Your task to perform on an android device: turn off improve location accuracy Image 0: 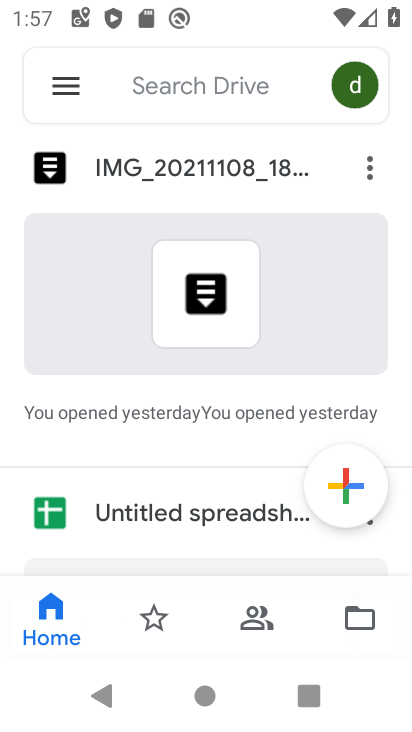
Step 0: press home button
Your task to perform on an android device: turn off improve location accuracy Image 1: 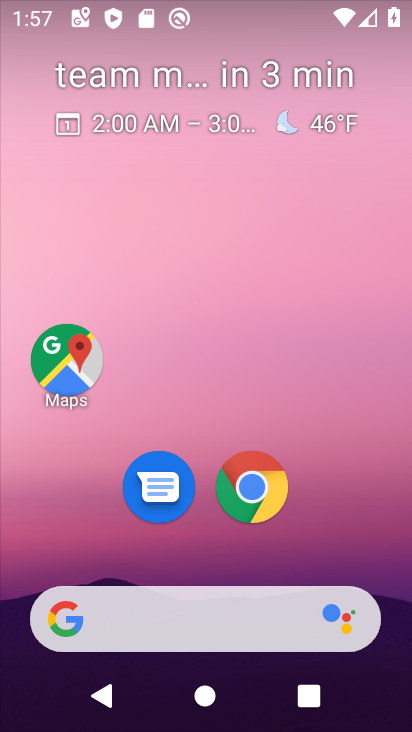
Step 1: drag from (342, 519) to (282, 91)
Your task to perform on an android device: turn off improve location accuracy Image 2: 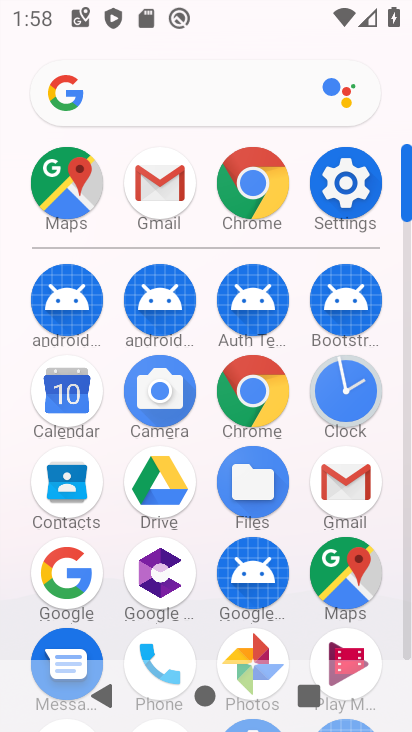
Step 2: click (340, 192)
Your task to perform on an android device: turn off improve location accuracy Image 3: 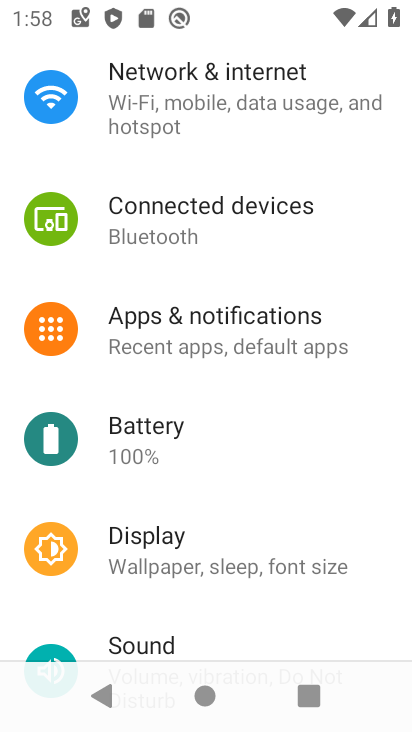
Step 3: drag from (262, 218) to (318, 133)
Your task to perform on an android device: turn off improve location accuracy Image 4: 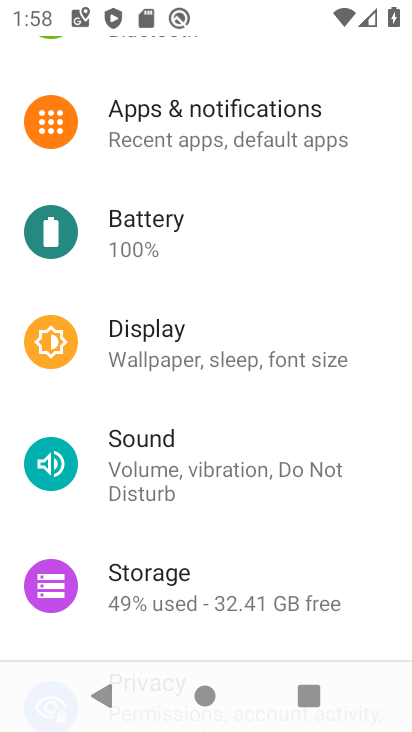
Step 4: drag from (222, 515) to (255, 188)
Your task to perform on an android device: turn off improve location accuracy Image 5: 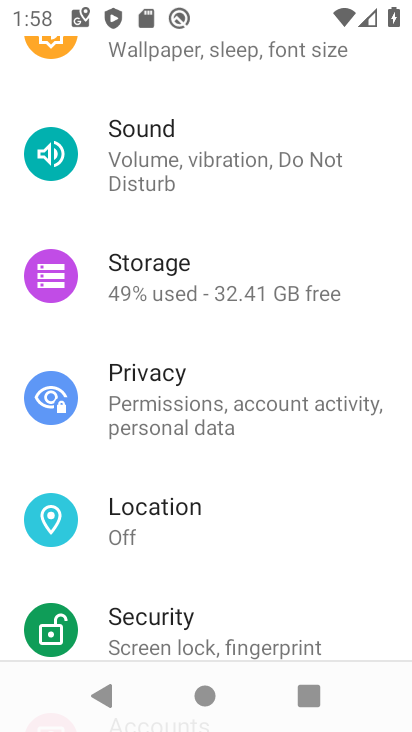
Step 5: drag from (163, 568) to (243, 318)
Your task to perform on an android device: turn off improve location accuracy Image 6: 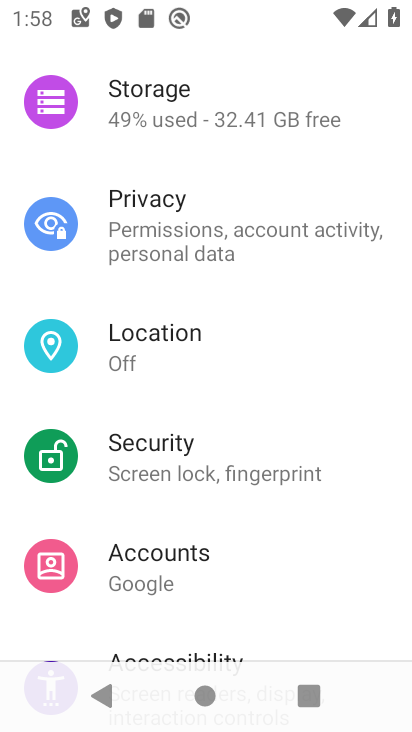
Step 6: click (166, 324)
Your task to perform on an android device: turn off improve location accuracy Image 7: 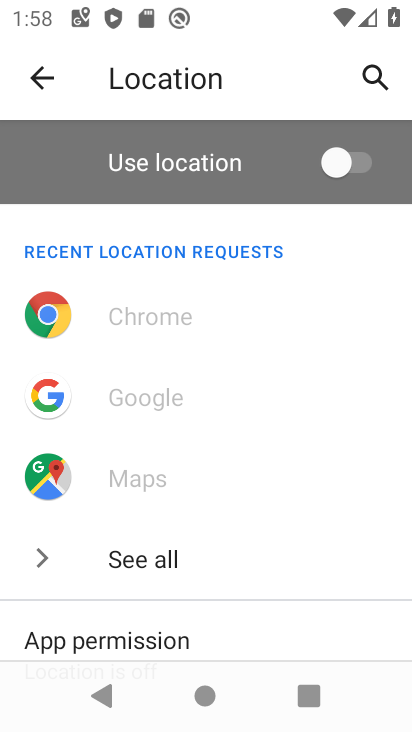
Step 7: drag from (170, 620) to (252, 207)
Your task to perform on an android device: turn off improve location accuracy Image 8: 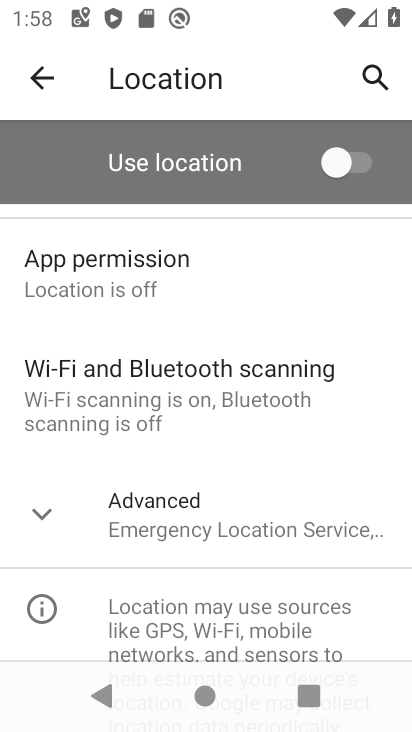
Step 8: click (209, 504)
Your task to perform on an android device: turn off improve location accuracy Image 9: 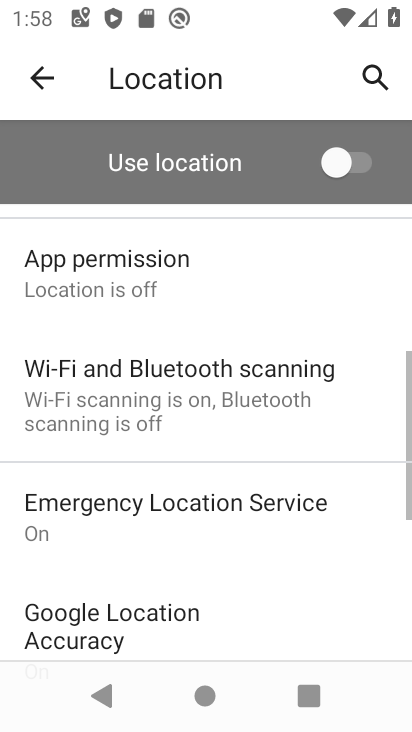
Step 9: drag from (320, 608) to (335, 190)
Your task to perform on an android device: turn off improve location accuracy Image 10: 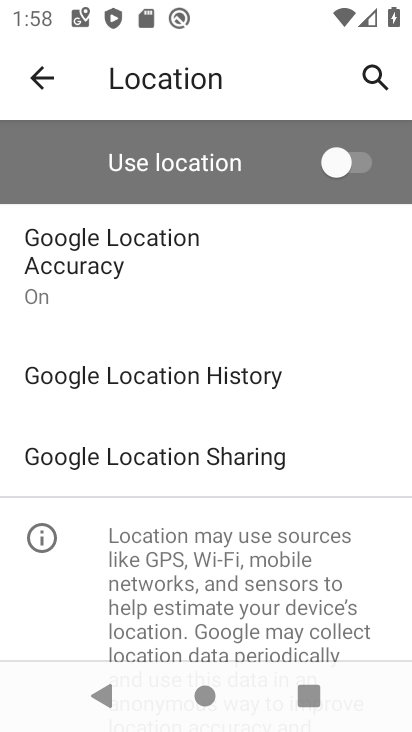
Step 10: drag from (325, 299) to (323, 455)
Your task to perform on an android device: turn off improve location accuracy Image 11: 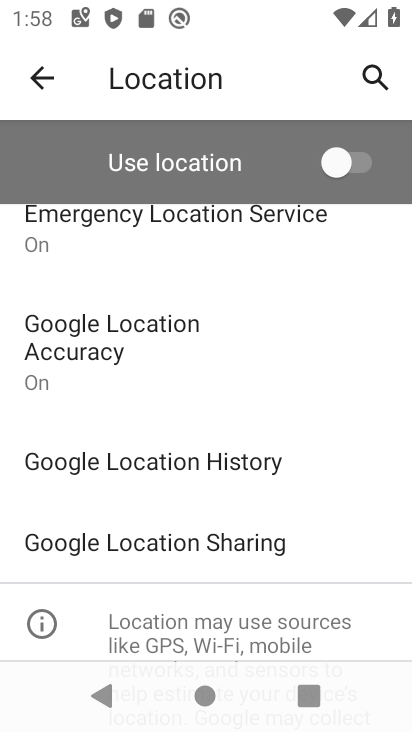
Step 11: click (142, 334)
Your task to perform on an android device: turn off improve location accuracy Image 12: 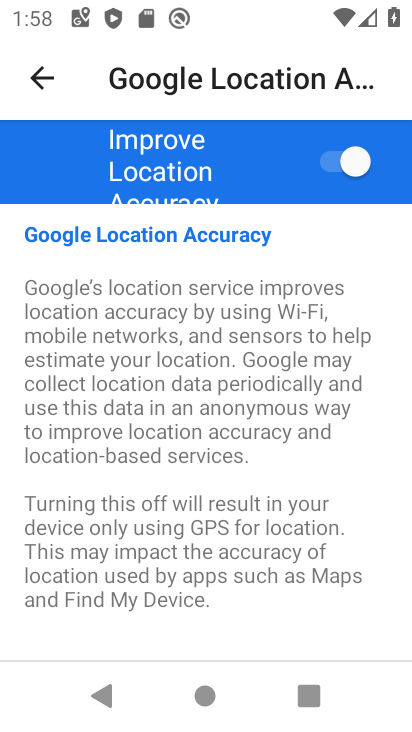
Step 12: click (334, 150)
Your task to perform on an android device: turn off improve location accuracy Image 13: 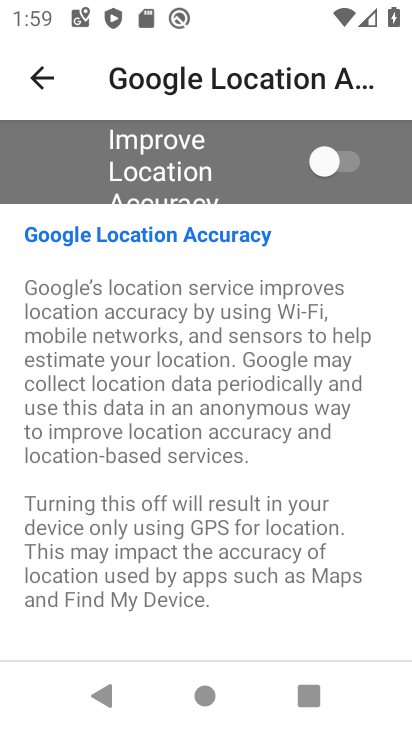
Step 13: task complete